Your task to perform on an android device: check google app version Image 0: 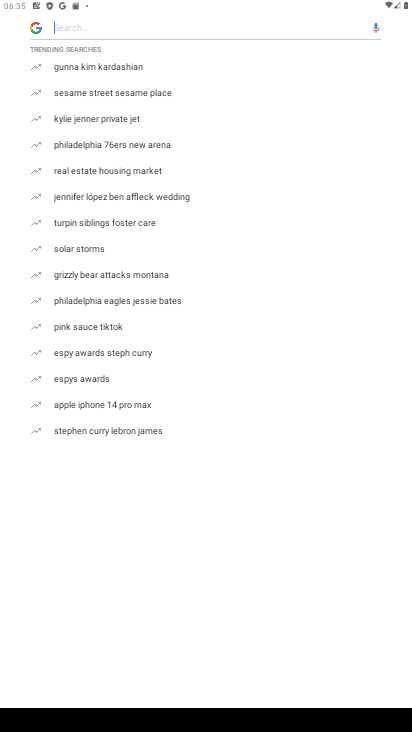
Step 0: click (37, 32)
Your task to perform on an android device: check google app version Image 1: 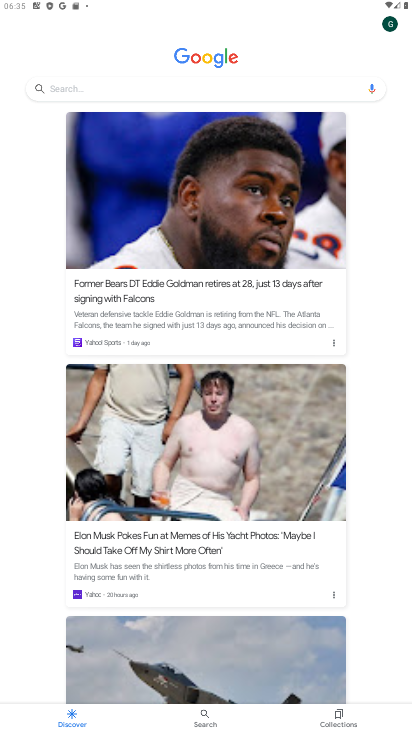
Step 1: click (40, 29)
Your task to perform on an android device: check google app version Image 2: 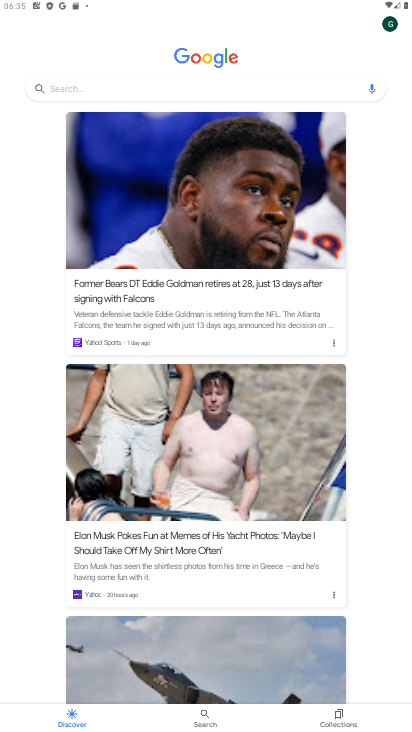
Step 2: click (389, 26)
Your task to perform on an android device: check google app version Image 3: 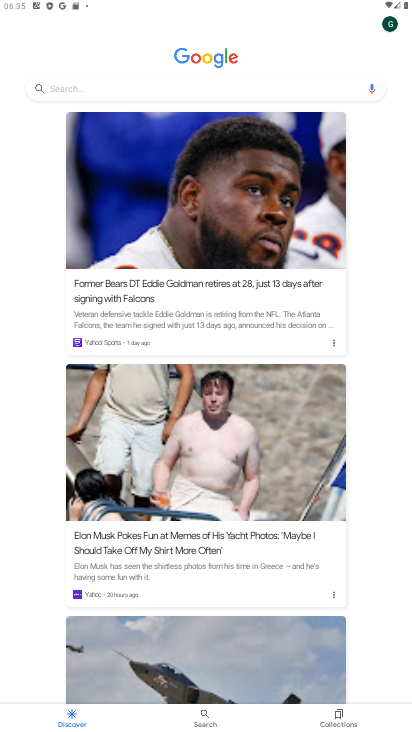
Step 3: click (389, 26)
Your task to perform on an android device: check google app version Image 4: 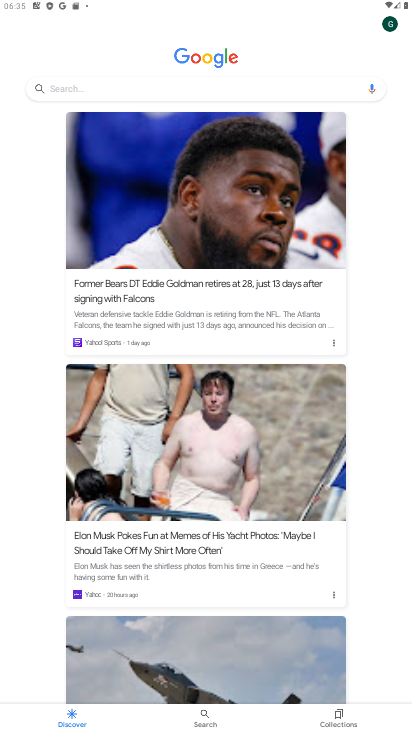
Step 4: click (389, 26)
Your task to perform on an android device: check google app version Image 5: 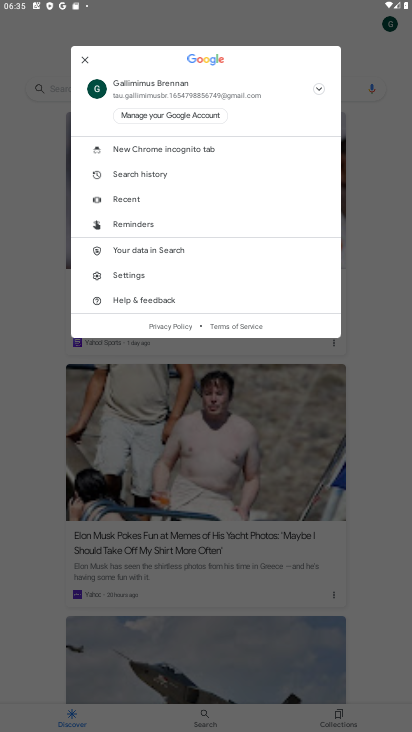
Step 5: click (112, 281)
Your task to perform on an android device: check google app version Image 6: 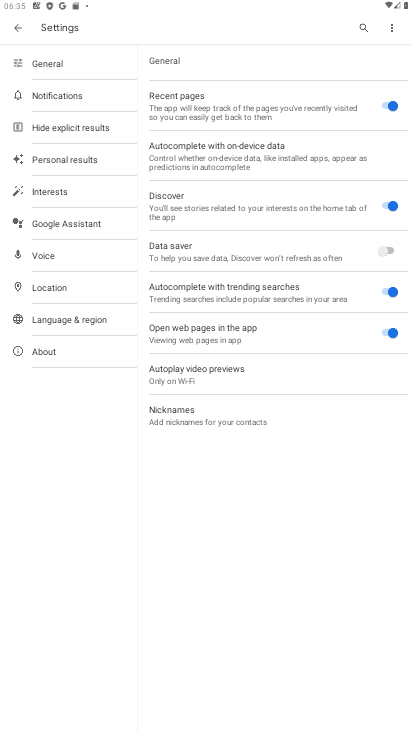
Step 6: click (54, 352)
Your task to perform on an android device: check google app version Image 7: 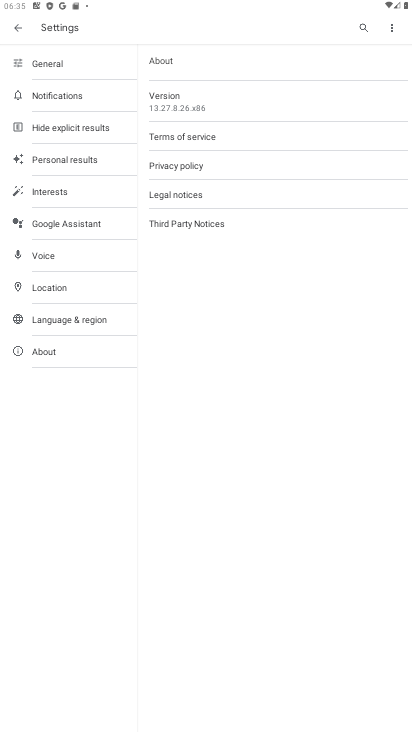
Step 7: task complete